Your task to perform on an android device: Go to Google Image 0: 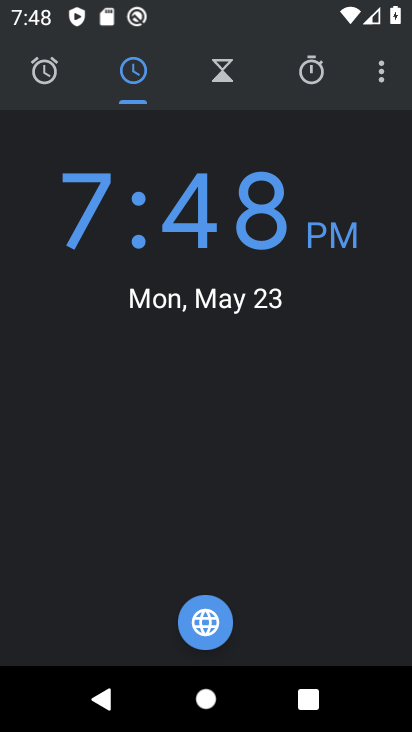
Step 0: press home button
Your task to perform on an android device: Go to Google Image 1: 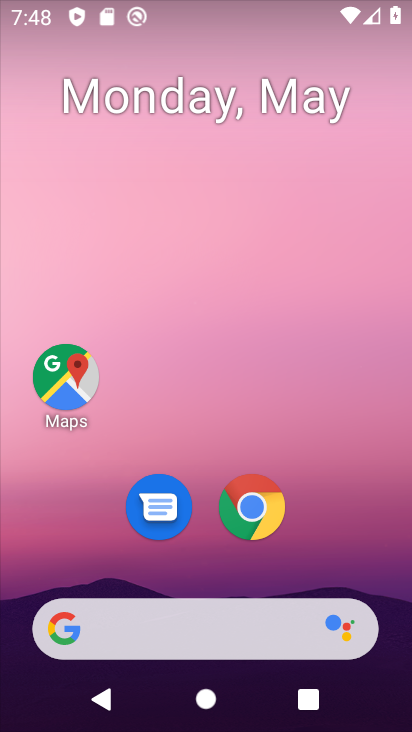
Step 1: drag from (337, 587) to (281, 8)
Your task to perform on an android device: Go to Google Image 2: 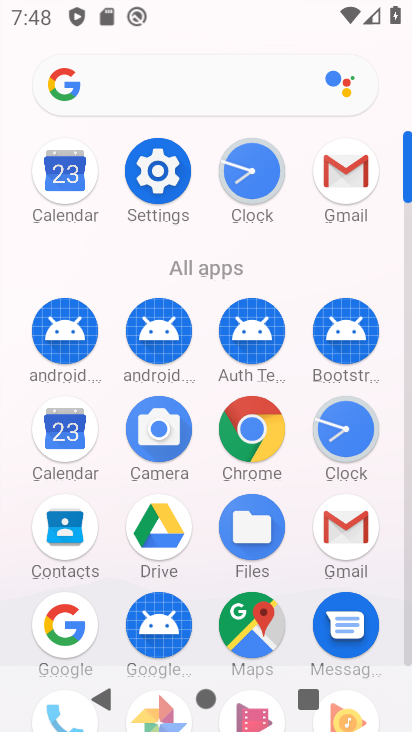
Step 2: click (66, 613)
Your task to perform on an android device: Go to Google Image 3: 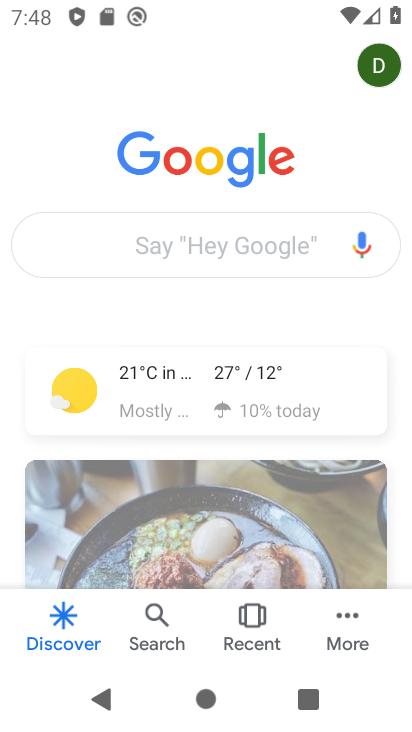
Step 3: task complete